Your task to perform on an android device: turn on airplane mode Image 0: 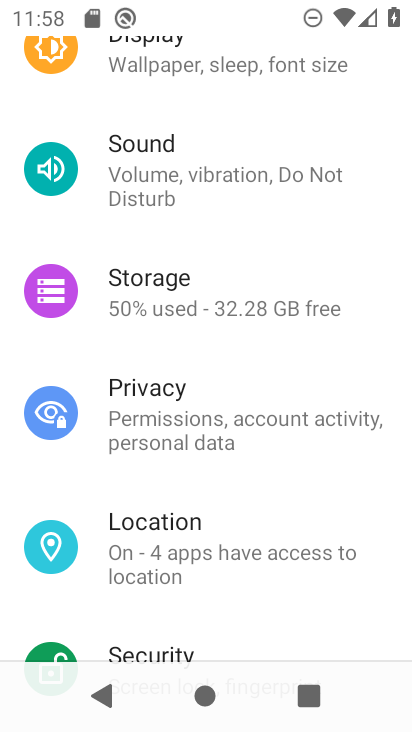
Step 0: drag from (232, 213) to (167, 571)
Your task to perform on an android device: turn on airplane mode Image 1: 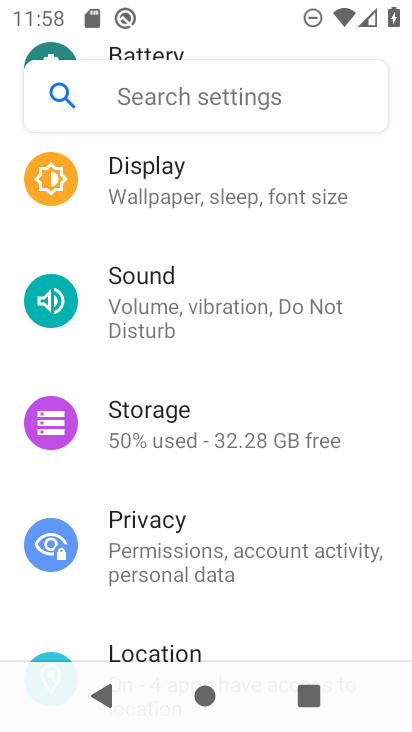
Step 1: drag from (165, 209) to (229, 725)
Your task to perform on an android device: turn on airplane mode Image 2: 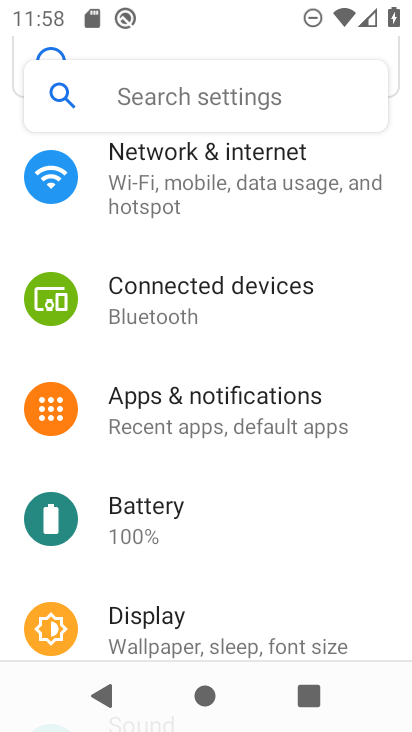
Step 2: drag from (186, 224) to (205, 592)
Your task to perform on an android device: turn on airplane mode Image 3: 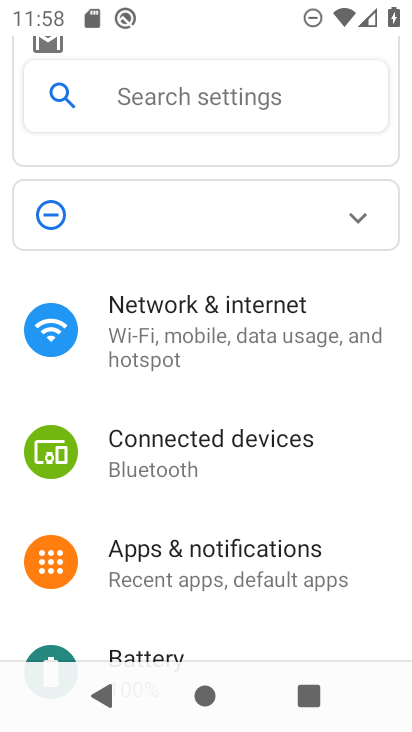
Step 3: click (198, 306)
Your task to perform on an android device: turn on airplane mode Image 4: 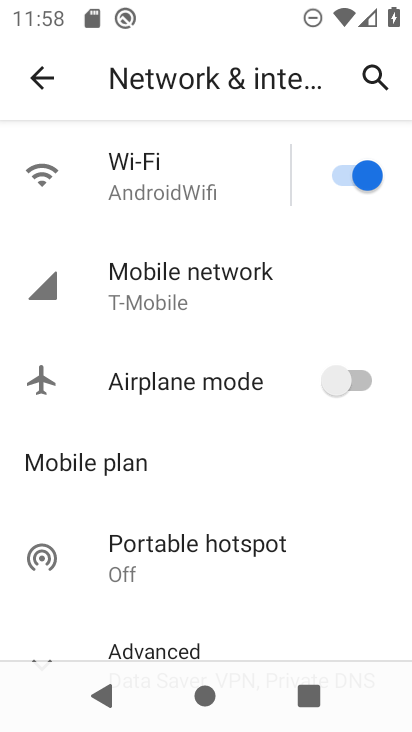
Step 4: click (341, 374)
Your task to perform on an android device: turn on airplane mode Image 5: 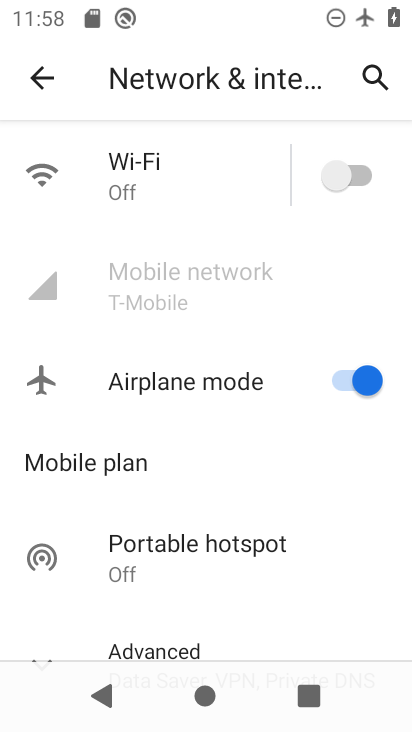
Step 5: task complete